Your task to perform on an android device: move a message to another label in the gmail app Image 0: 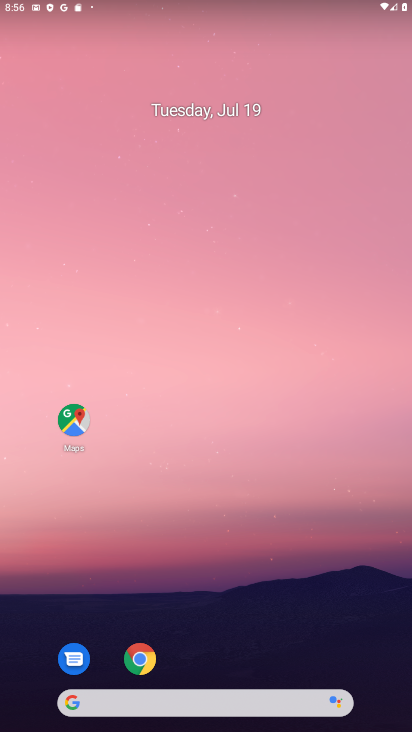
Step 0: drag from (271, 601) to (366, 51)
Your task to perform on an android device: move a message to another label in the gmail app Image 1: 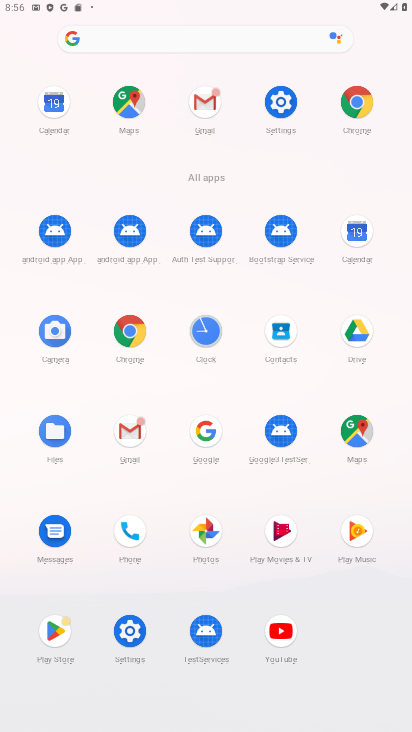
Step 1: click (134, 428)
Your task to perform on an android device: move a message to another label in the gmail app Image 2: 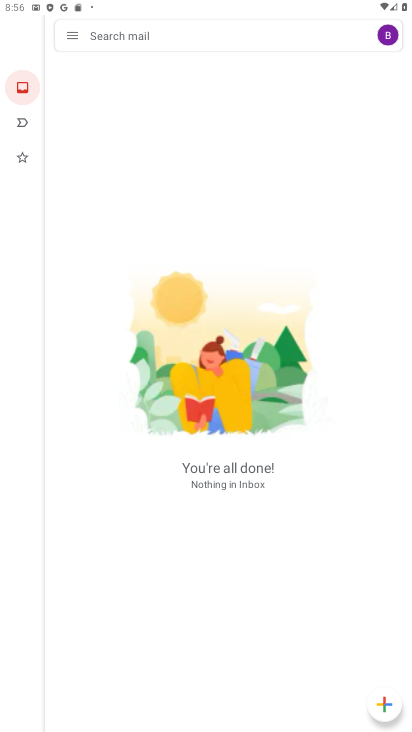
Step 2: task complete